Your task to perform on an android device: move a message to another label in the gmail app Image 0: 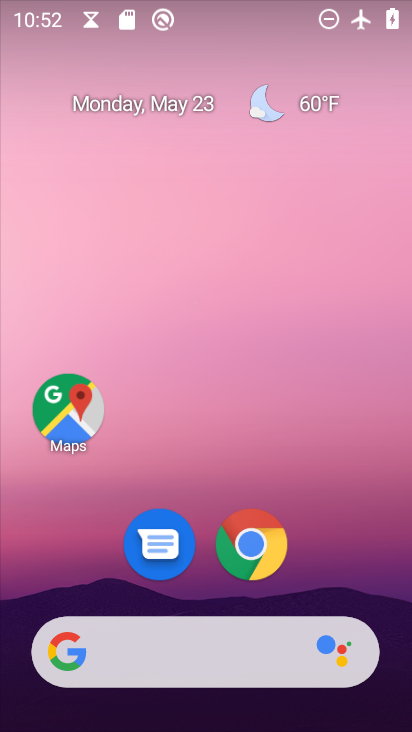
Step 0: drag from (302, 550) to (150, 184)
Your task to perform on an android device: move a message to another label in the gmail app Image 1: 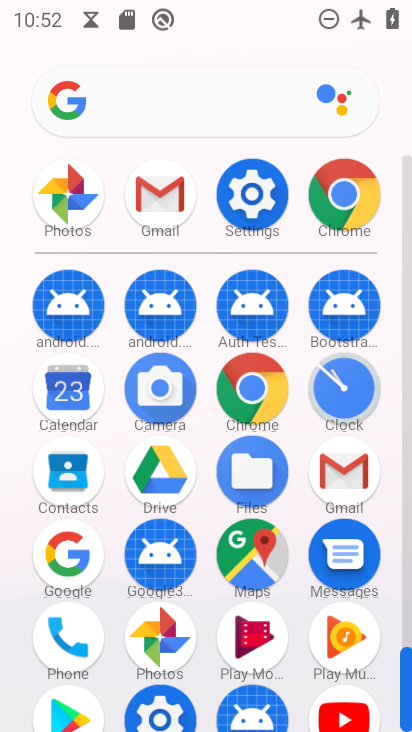
Step 1: click (362, 487)
Your task to perform on an android device: move a message to another label in the gmail app Image 2: 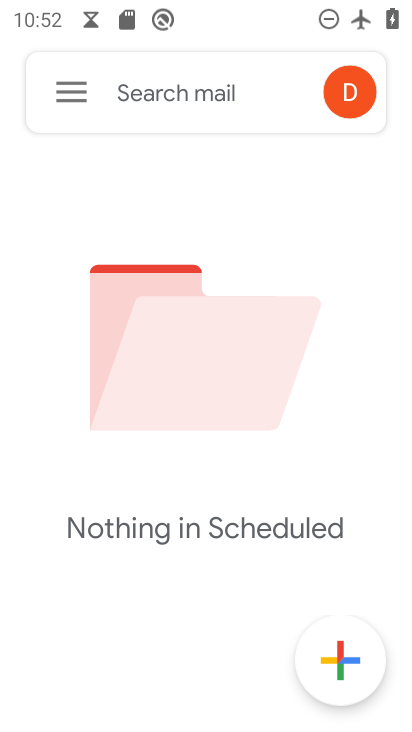
Step 2: click (82, 97)
Your task to perform on an android device: move a message to another label in the gmail app Image 3: 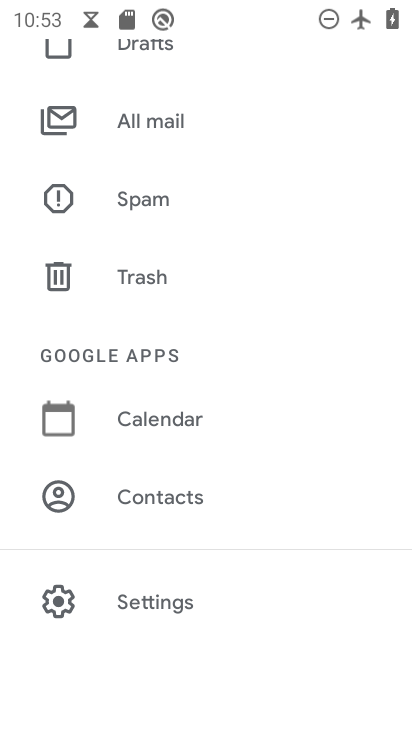
Step 3: drag from (206, 199) to (256, 578)
Your task to perform on an android device: move a message to another label in the gmail app Image 4: 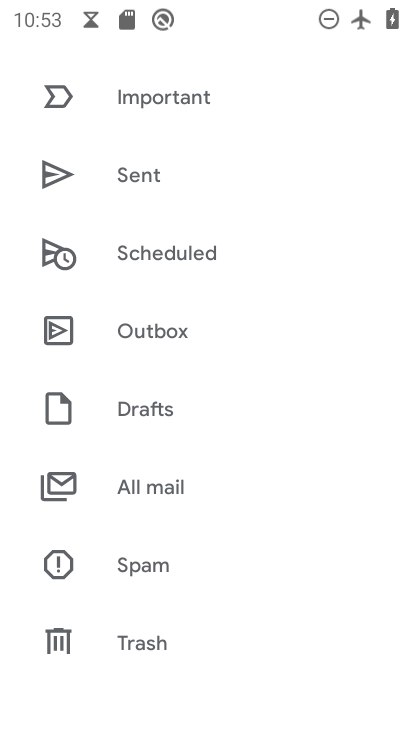
Step 4: drag from (245, 229) to (244, 564)
Your task to perform on an android device: move a message to another label in the gmail app Image 5: 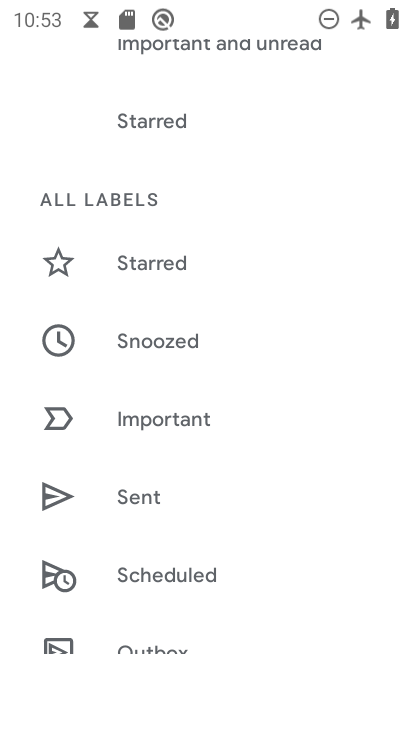
Step 5: drag from (281, 201) to (249, 496)
Your task to perform on an android device: move a message to another label in the gmail app Image 6: 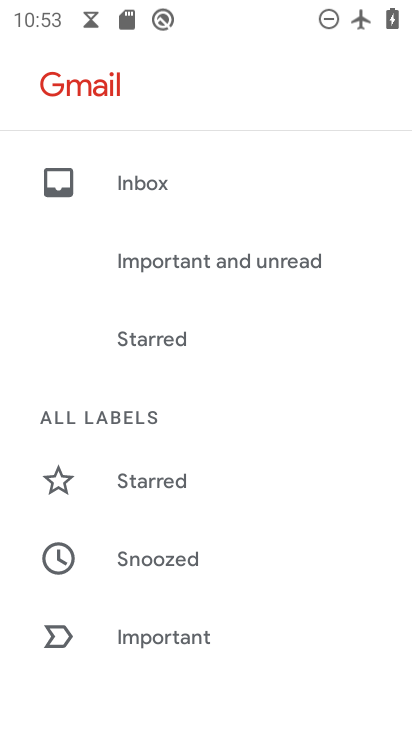
Step 6: click (142, 181)
Your task to perform on an android device: move a message to another label in the gmail app Image 7: 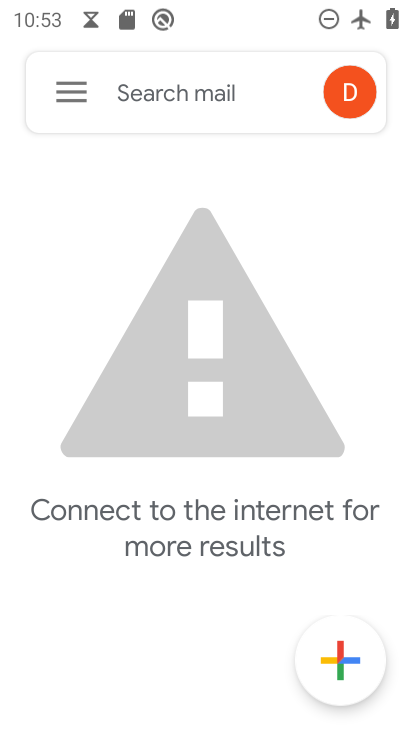
Step 7: task complete